Your task to perform on an android device: delete location history Image 0: 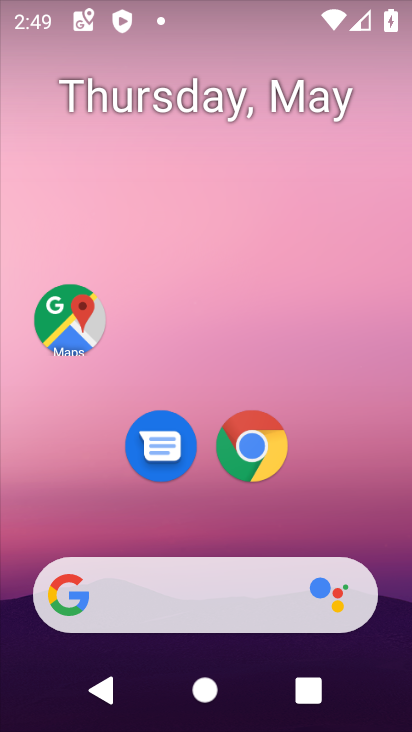
Step 0: click (70, 323)
Your task to perform on an android device: delete location history Image 1: 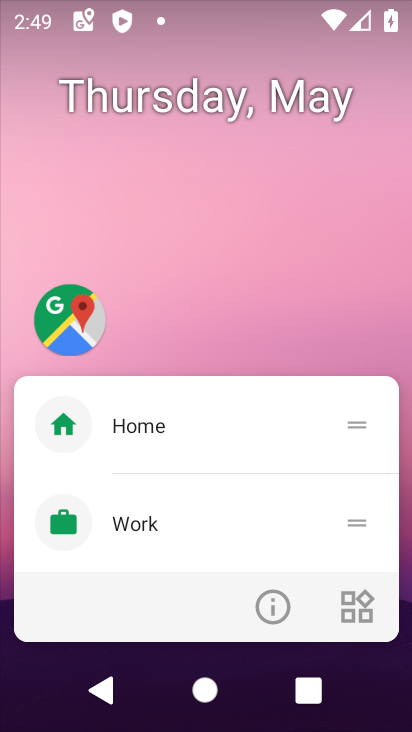
Step 1: click (70, 323)
Your task to perform on an android device: delete location history Image 2: 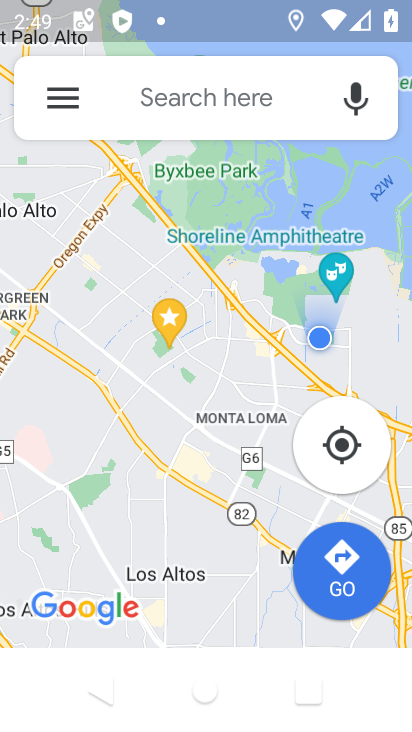
Step 2: click (64, 99)
Your task to perform on an android device: delete location history Image 3: 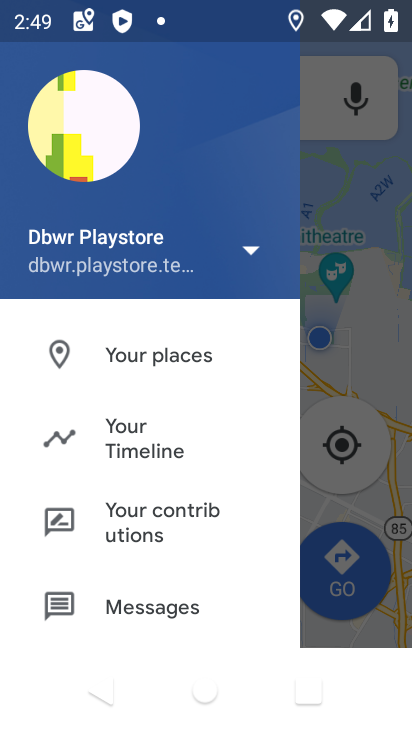
Step 3: click (135, 440)
Your task to perform on an android device: delete location history Image 4: 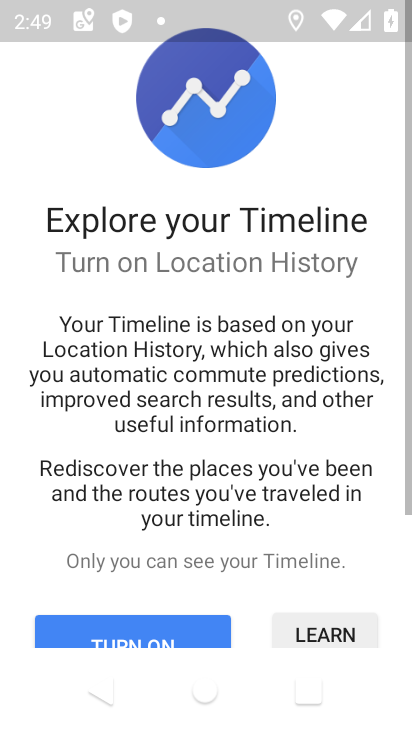
Step 4: drag from (215, 544) to (275, 176)
Your task to perform on an android device: delete location history Image 5: 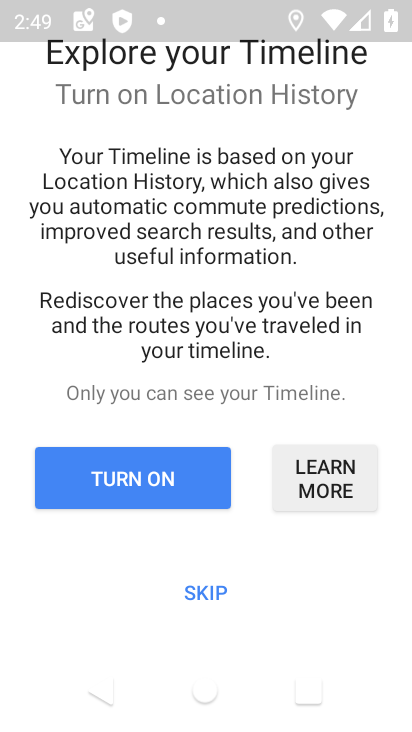
Step 5: click (219, 581)
Your task to perform on an android device: delete location history Image 6: 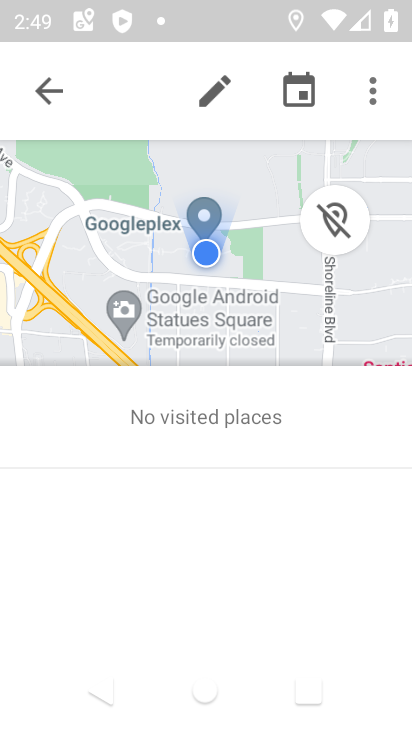
Step 6: click (385, 91)
Your task to perform on an android device: delete location history Image 7: 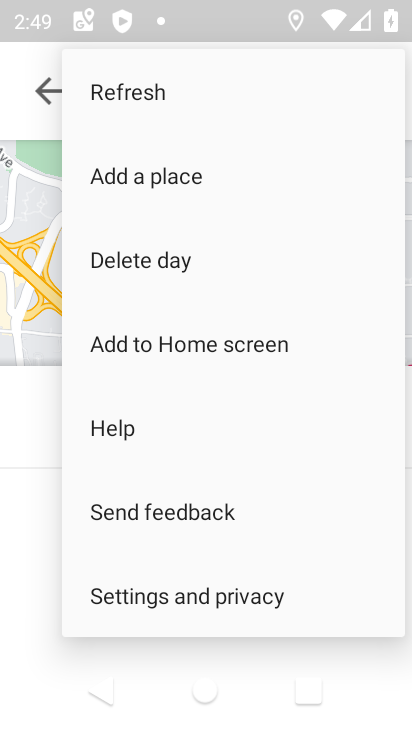
Step 7: click (186, 589)
Your task to perform on an android device: delete location history Image 8: 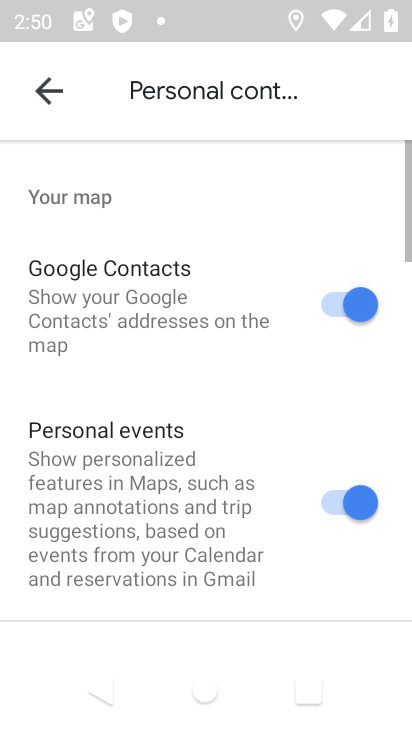
Step 8: drag from (178, 566) to (213, 93)
Your task to perform on an android device: delete location history Image 9: 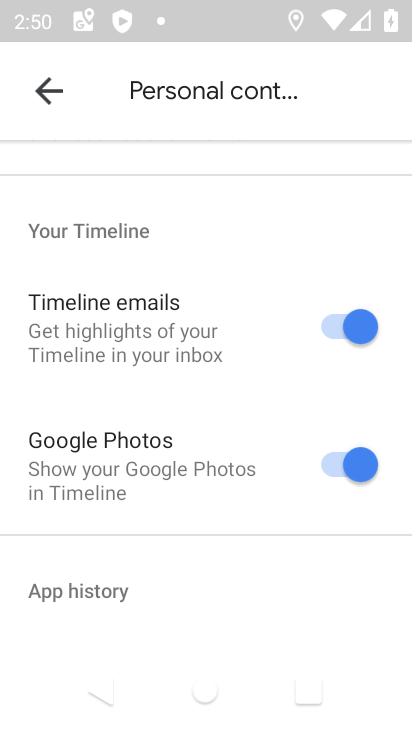
Step 9: drag from (166, 522) to (182, 102)
Your task to perform on an android device: delete location history Image 10: 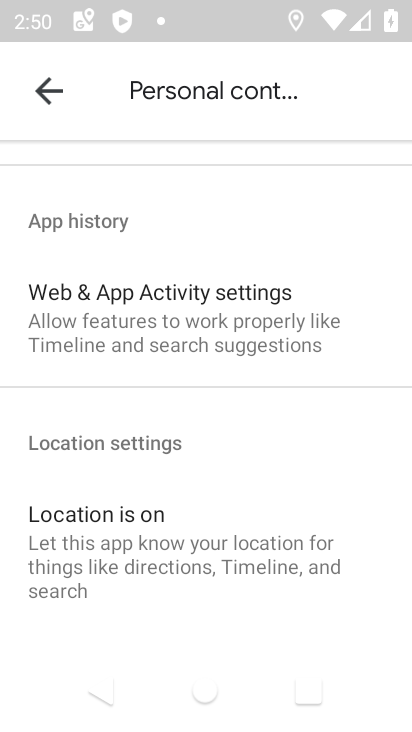
Step 10: drag from (157, 520) to (154, 212)
Your task to perform on an android device: delete location history Image 11: 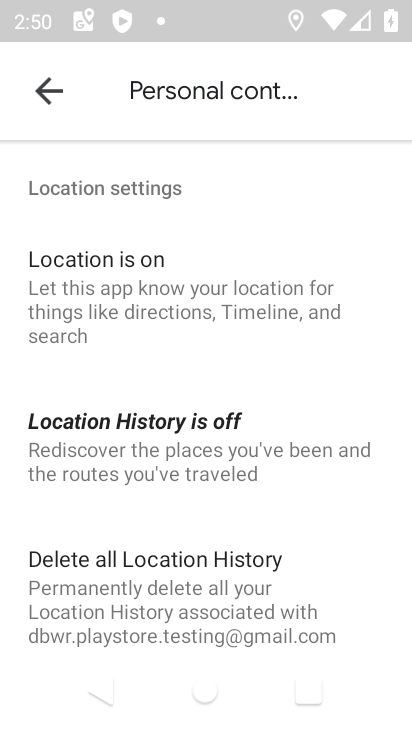
Step 11: click (128, 583)
Your task to perform on an android device: delete location history Image 12: 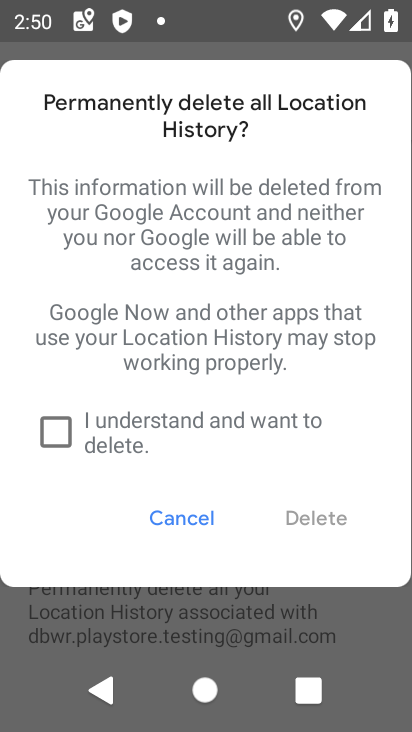
Step 12: click (47, 437)
Your task to perform on an android device: delete location history Image 13: 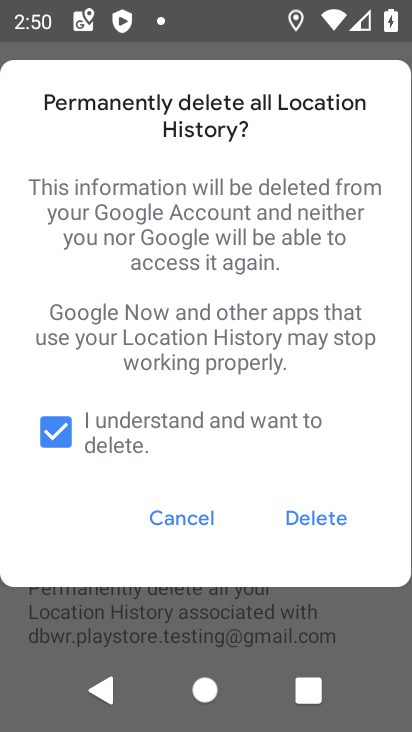
Step 13: click (314, 511)
Your task to perform on an android device: delete location history Image 14: 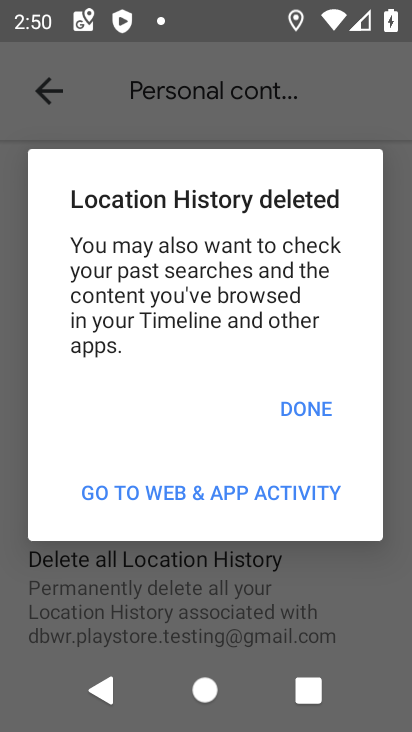
Step 14: task complete